Your task to perform on an android device: Go to internet settings Image 0: 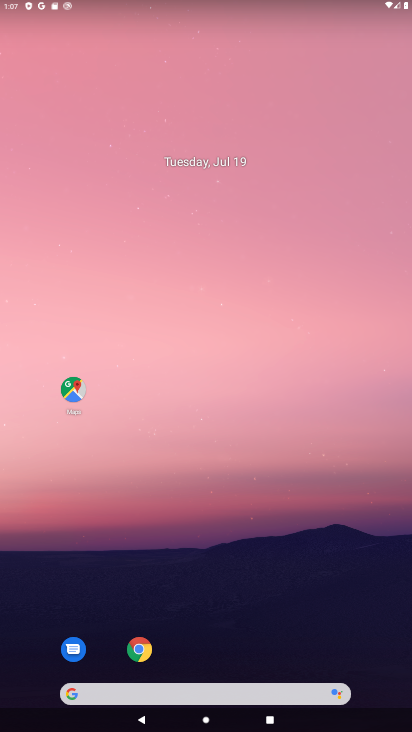
Step 0: drag from (213, 671) to (298, 26)
Your task to perform on an android device: Go to internet settings Image 1: 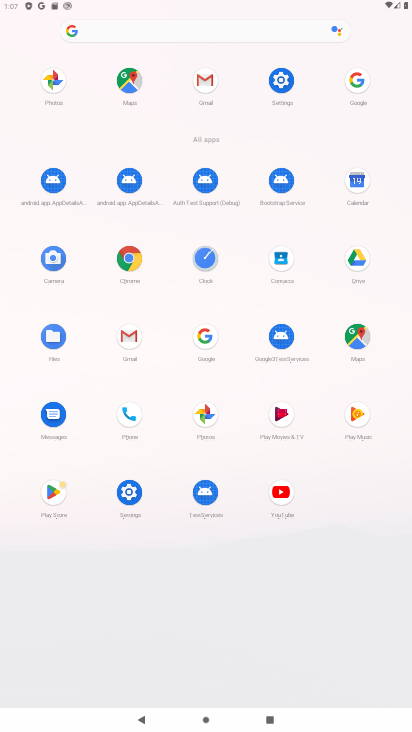
Step 1: click (134, 494)
Your task to perform on an android device: Go to internet settings Image 2: 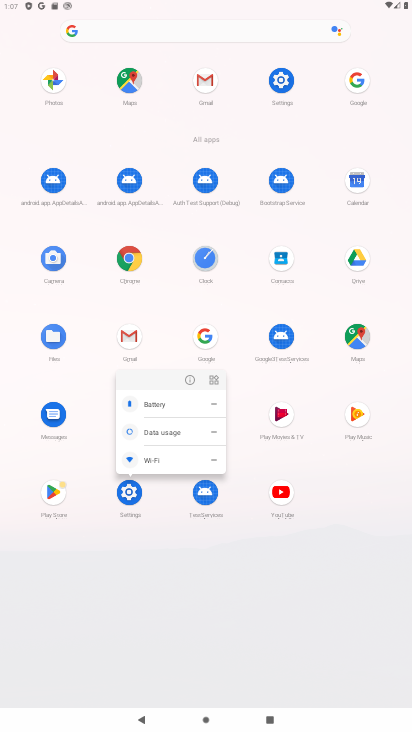
Step 2: click (133, 492)
Your task to perform on an android device: Go to internet settings Image 3: 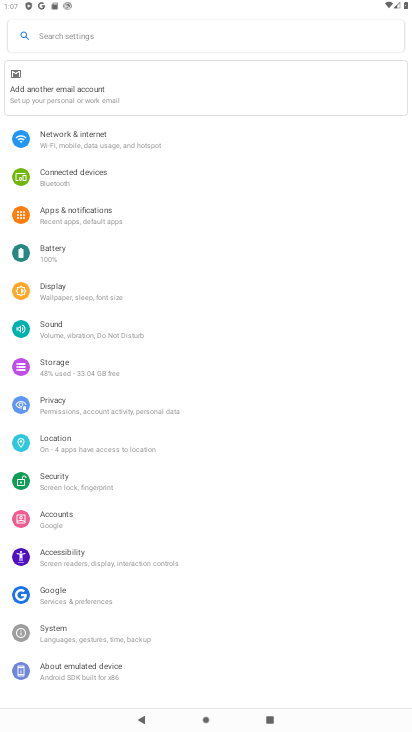
Step 3: click (104, 151)
Your task to perform on an android device: Go to internet settings Image 4: 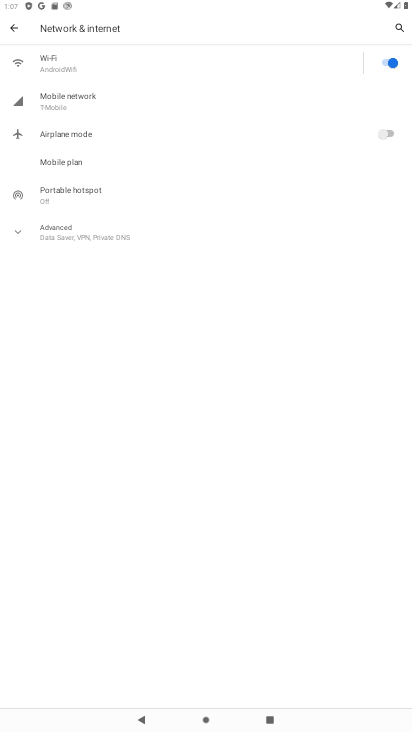
Step 4: task complete